Your task to perform on an android device: install app "Google Find My Device" Image 0: 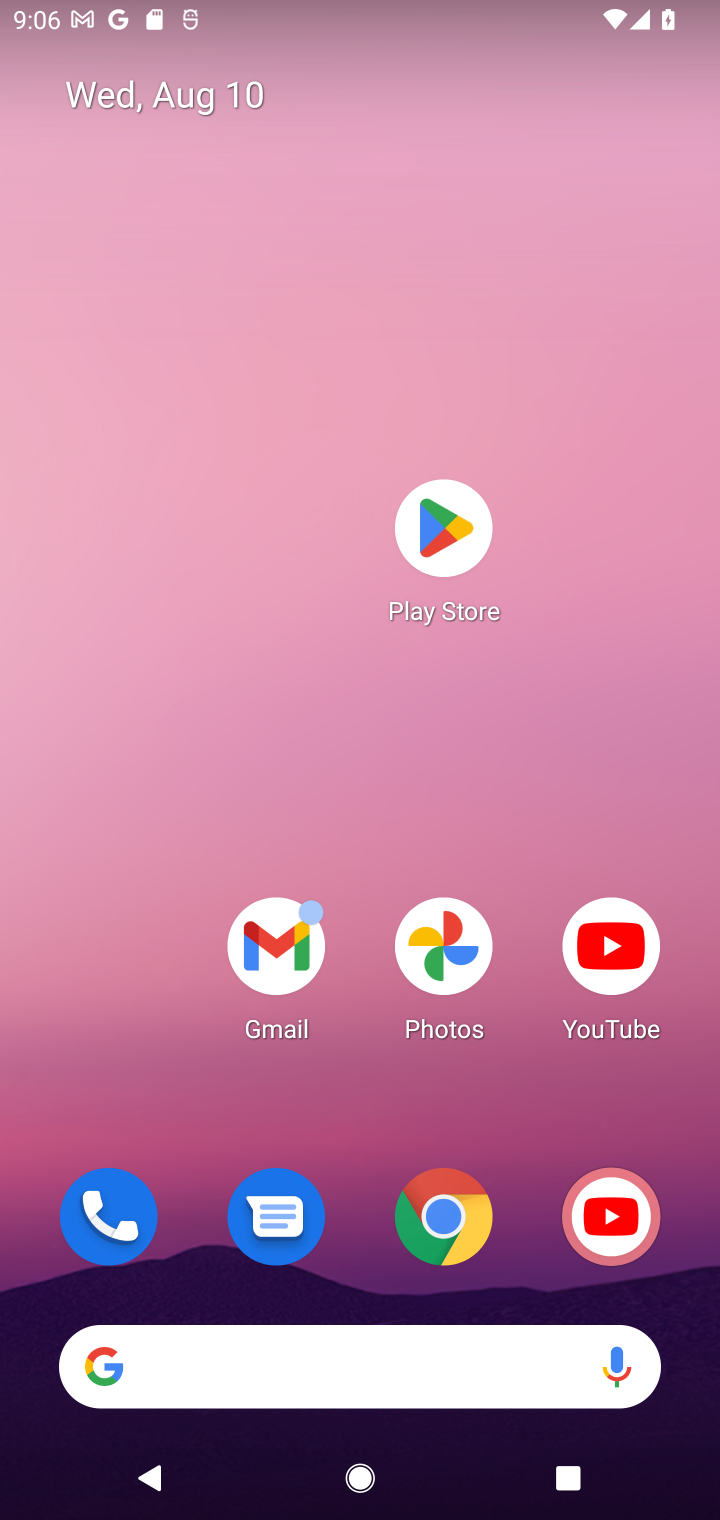
Step 0: click (431, 520)
Your task to perform on an android device: install app "Google Find My Device" Image 1: 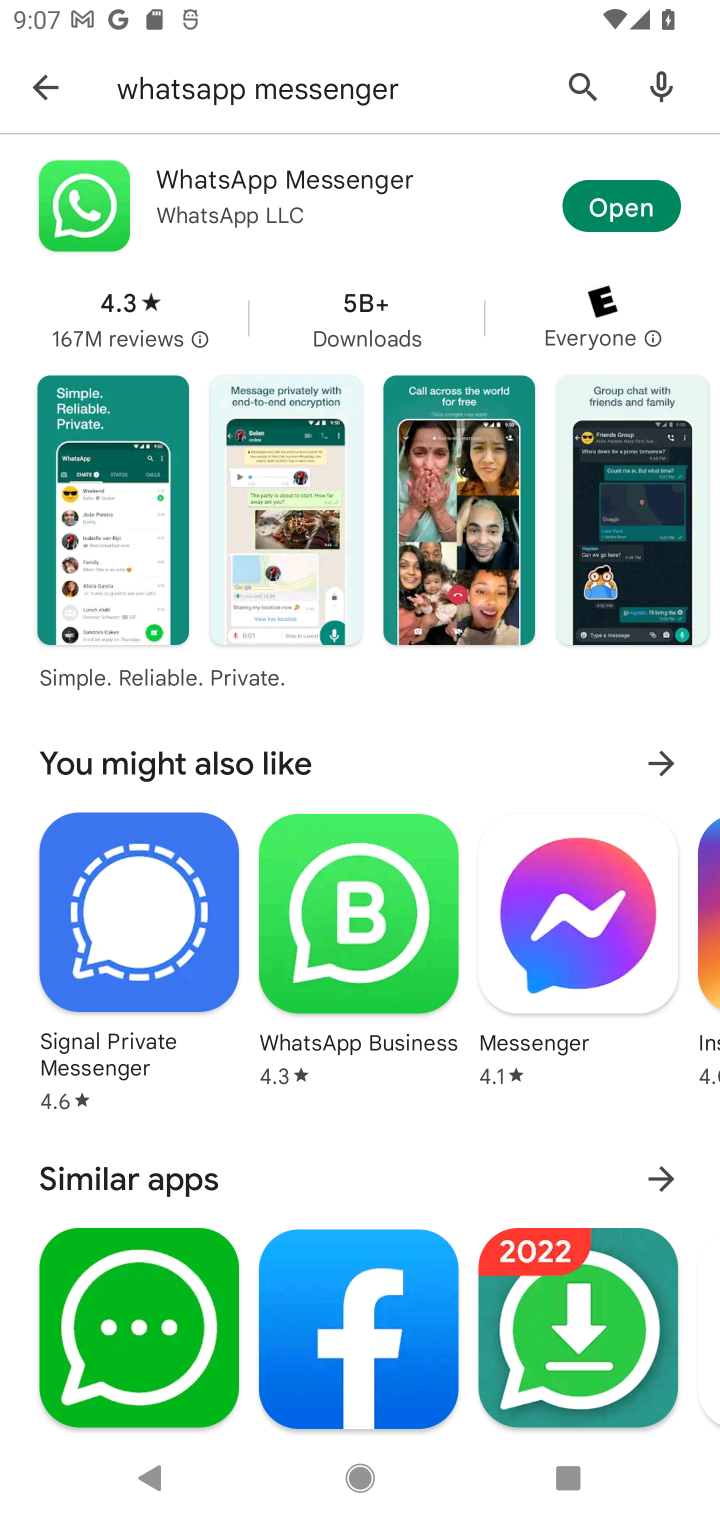
Step 1: click (575, 82)
Your task to perform on an android device: install app "Google Find My Device" Image 2: 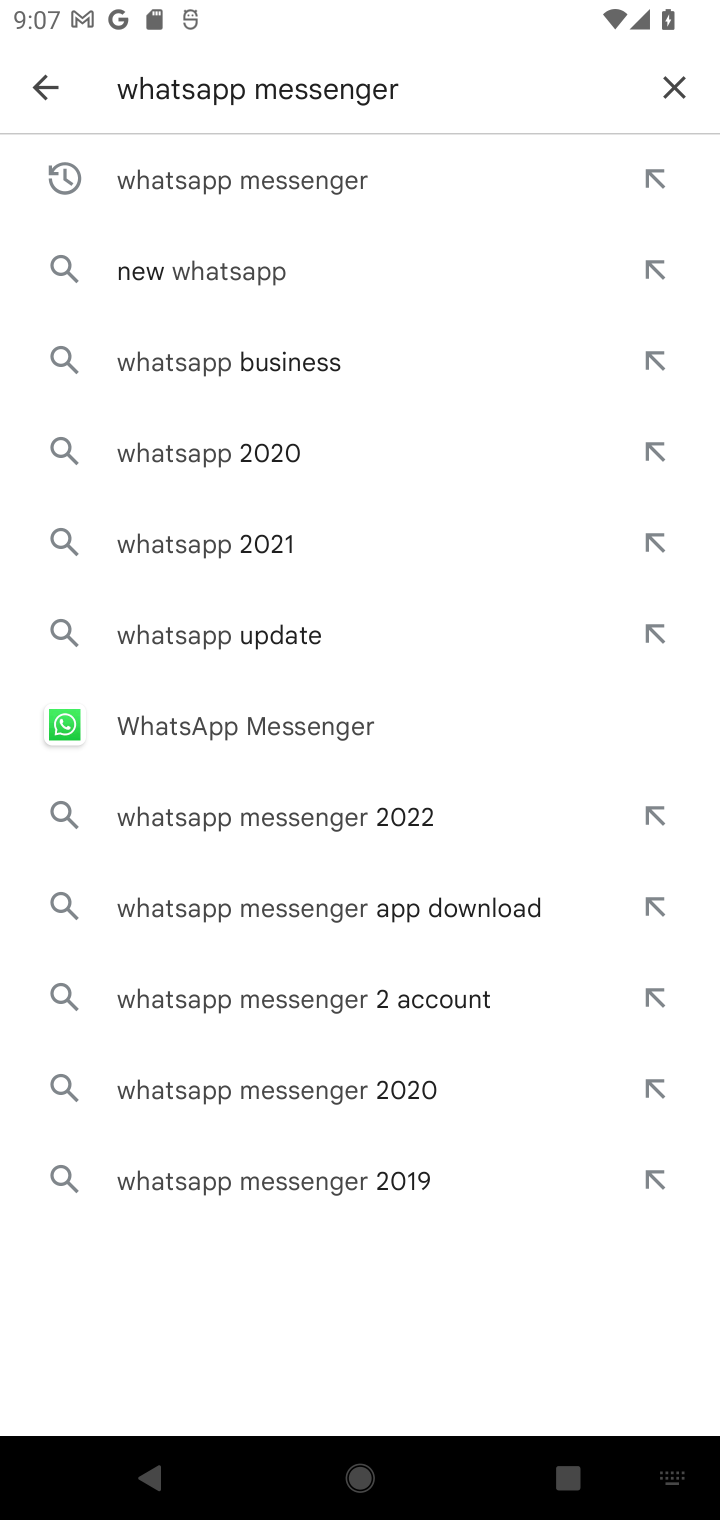
Step 2: click (671, 82)
Your task to perform on an android device: install app "Google Find My Device" Image 3: 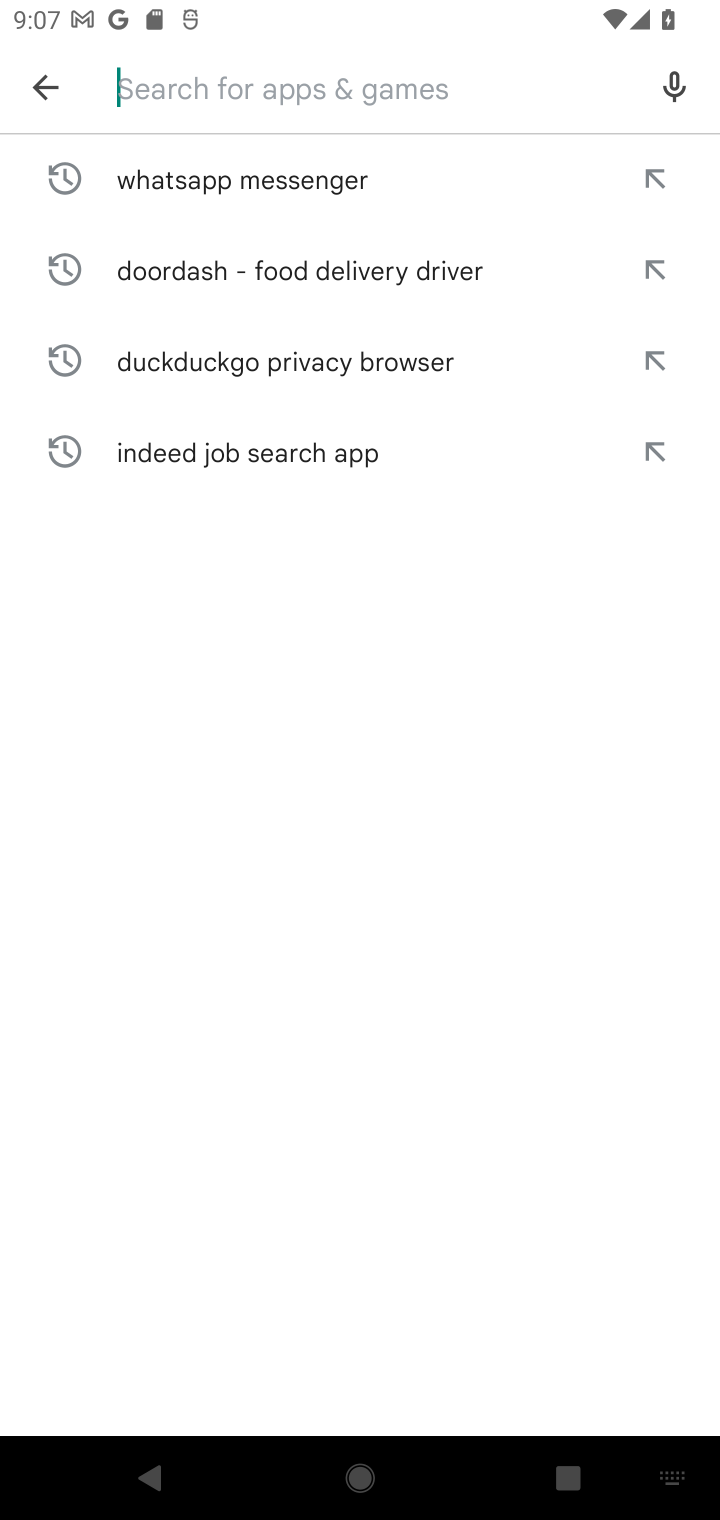
Step 3: type "Google Find My Device"
Your task to perform on an android device: install app "Google Find My Device" Image 4: 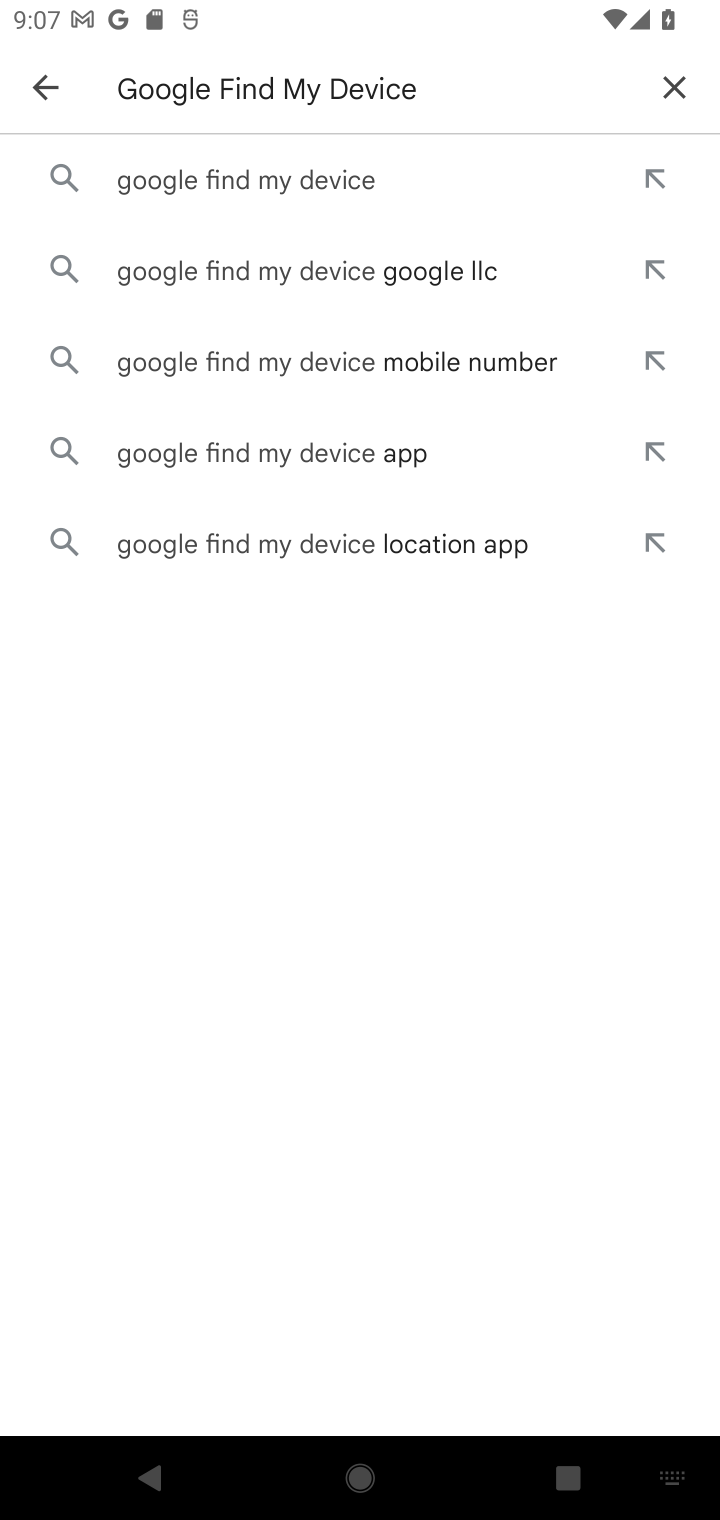
Step 4: click (306, 183)
Your task to perform on an android device: install app "Google Find My Device" Image 5: 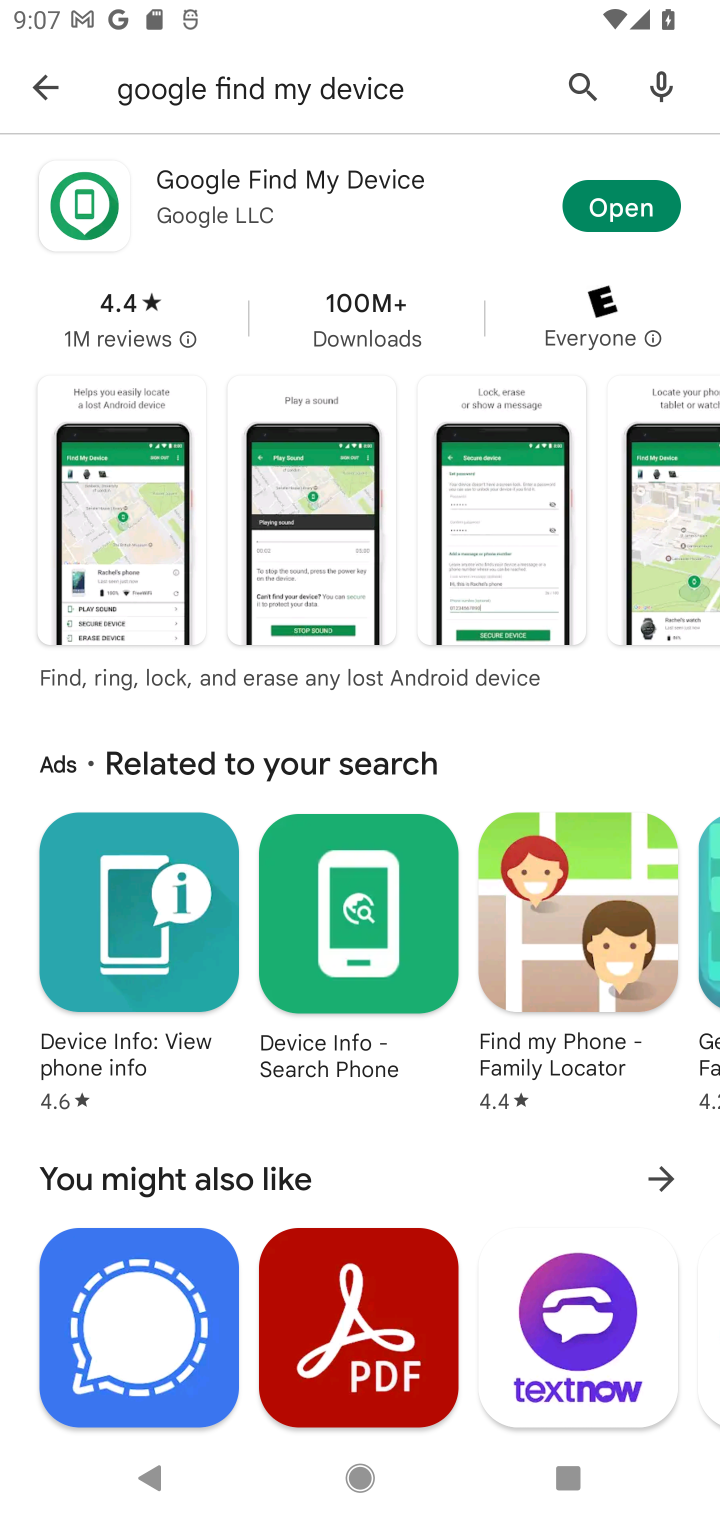
Step 5: task complete